Your task to perform on an android device: turn off data saver in the chrome app Image 0: 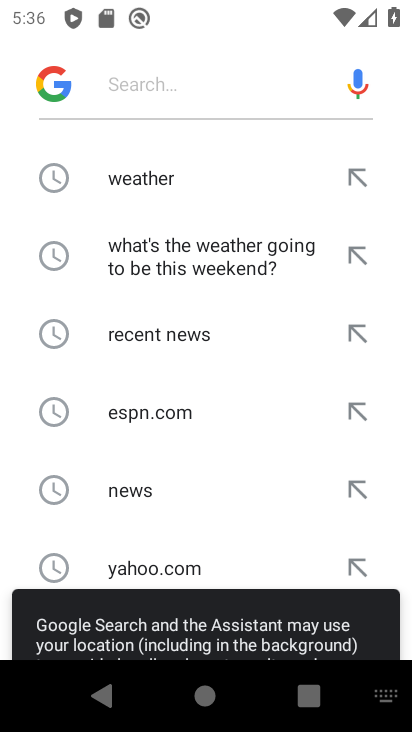
Step 0: press home button
Your task to perform on an android device: turn off data saver in the chrome app Image 1: 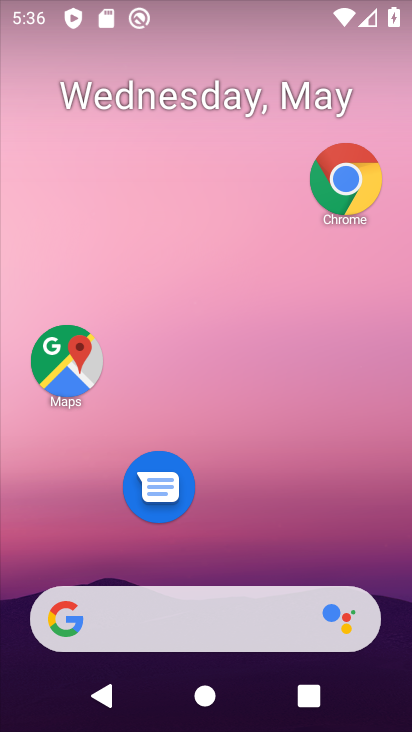
Step 1: click (355, 182)
Your task to perform on an android device: turn off data saver in the chrome app Image 2: 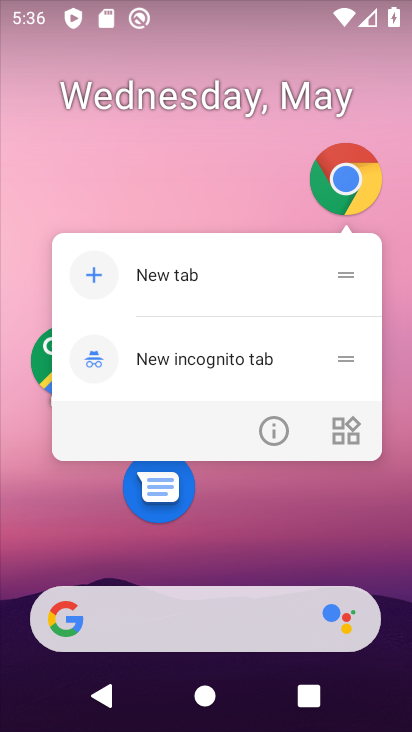
Step 2: click (344, 177)
Your task to perform on an android device: turn off data saver in the chrome app Image 3: 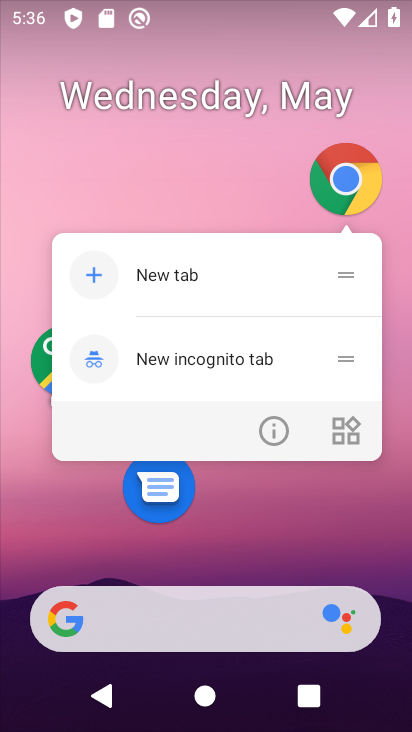
Step 3: click (342, 177)
Your task to perform on an android device: turn off data saver in the chrome app Image 4: 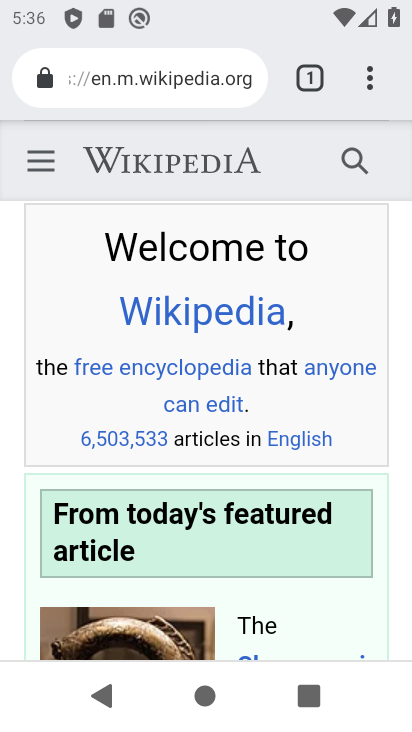
Step 4: click (370, 83)
Your task to perform on an android device: turn off data saver in the chrome app Image 5: 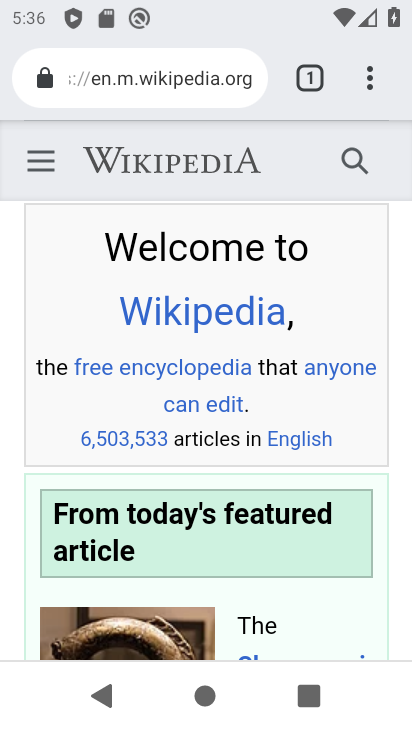
Step 5: click (370, 81)
Your task to perform on an android device: turn off data saver in the chrome app Image 6: 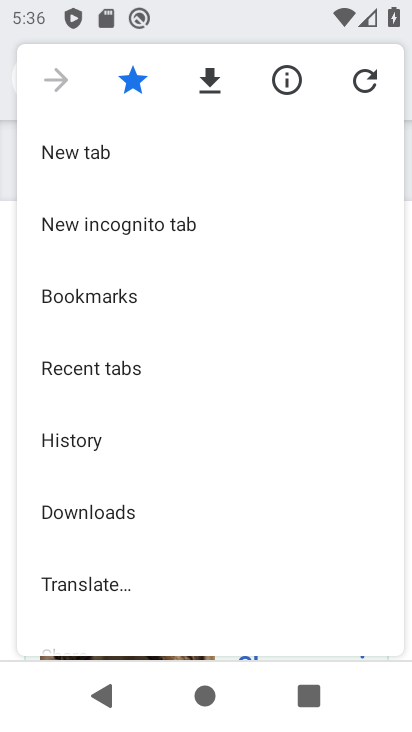
Step 6: drag from (170, 573) to (219, 188)
Your task to perform on an android device: turn off data saver in the chrome app Image 7: 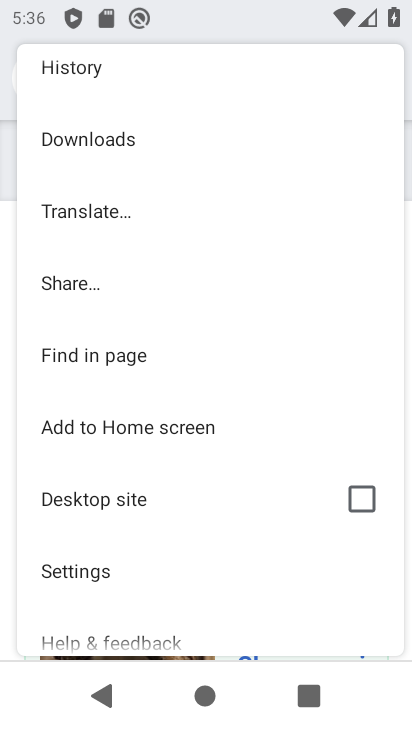
Step 7: click (88, 569)
Your task to perform on an android device: turn off data saver in the chrome app Image 8: 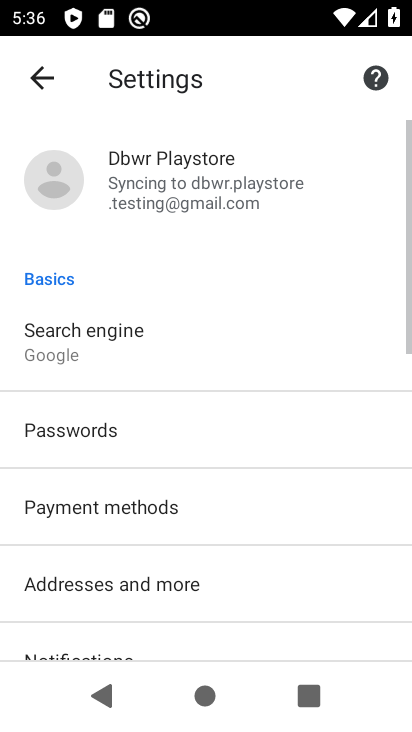
Step 8: drag from (106, 586) to (176, 292)
Your task to perform on an android device: turn off data saver in the chrome app Image 9: 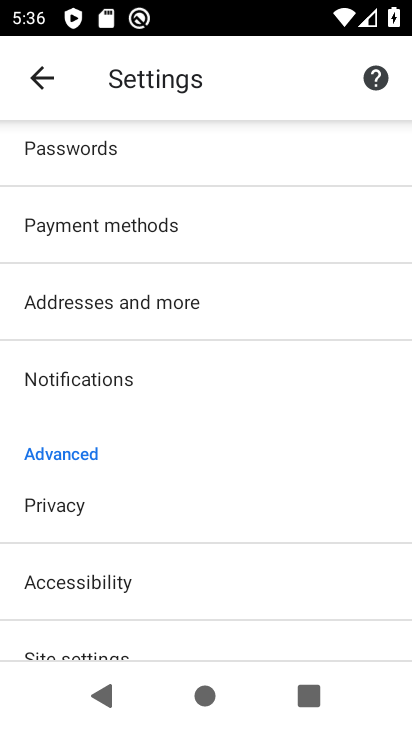
Step 9: drag from (138, 596) to (208, 255)
Your task to perform on an android device: turn off data saver in the chrome app Image 10: 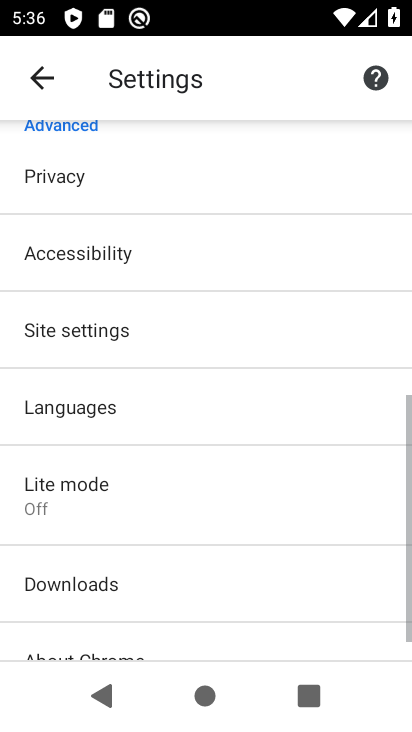
Step 10: drag from (102, 598) to (159, 278)
Your task to perform on an android device: turn off data saver in the chrome app Image 11: 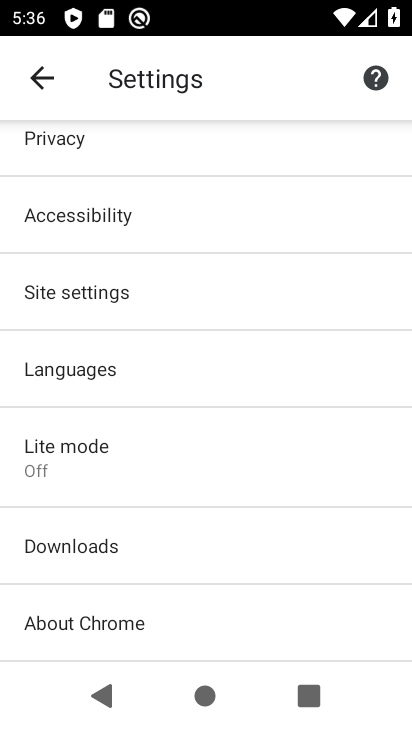
Step 11: click (66, 460)
Your task to perform on an android device: turn off data saver in the chrome app Image 12: 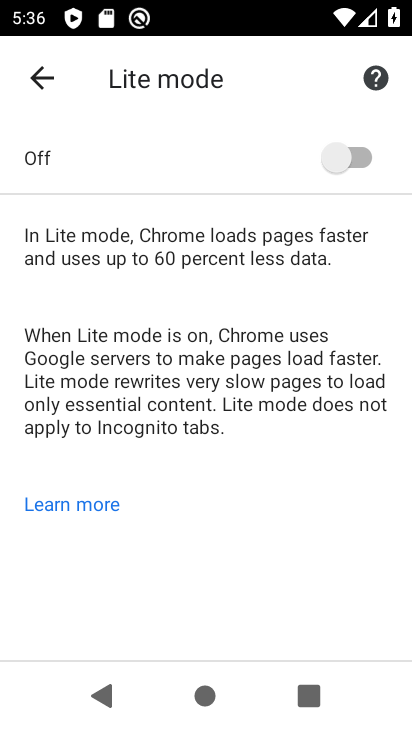
Step 12: task complete